Your task to perform on an android device: Open accessibility settings Image 0: 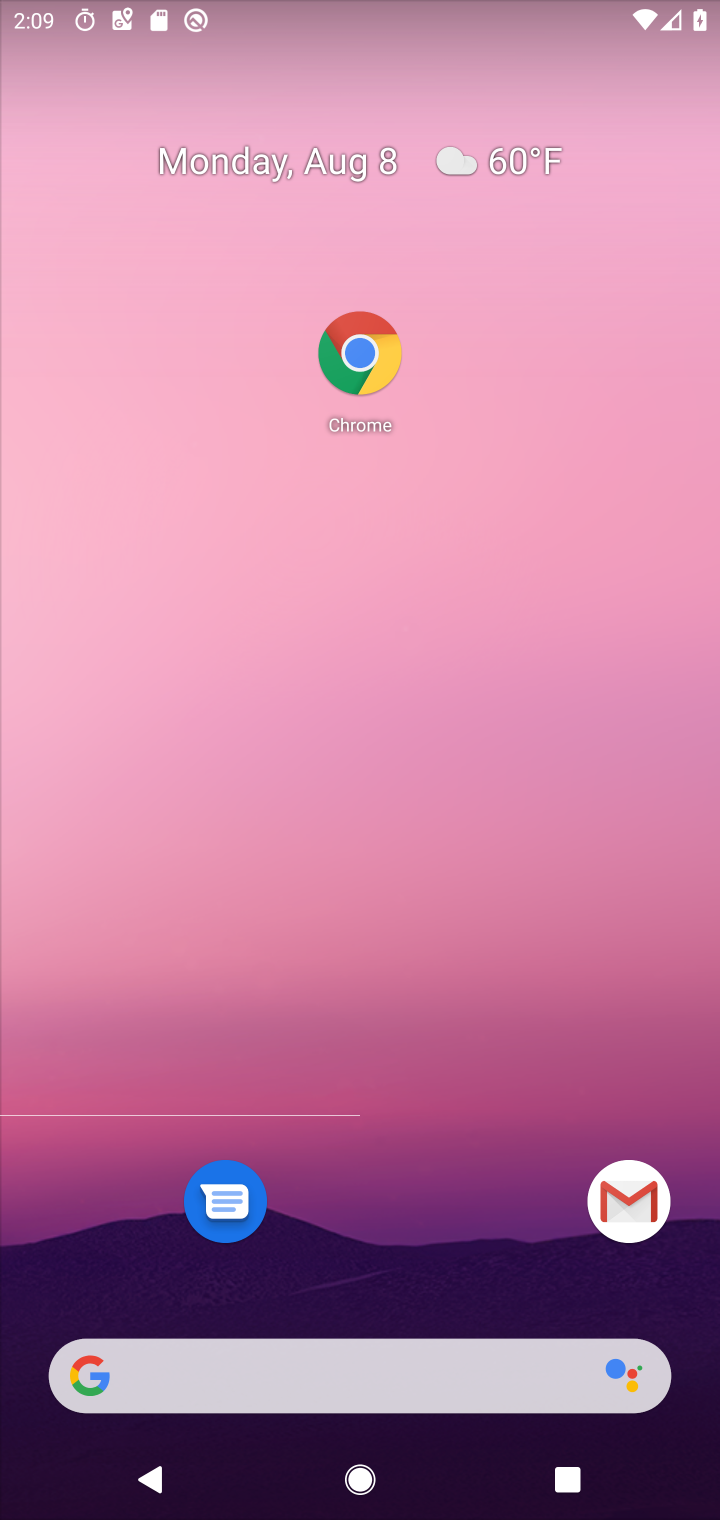
Step 0: press home button
Your task to perform on an android device: Open accessibility settings Image 1: 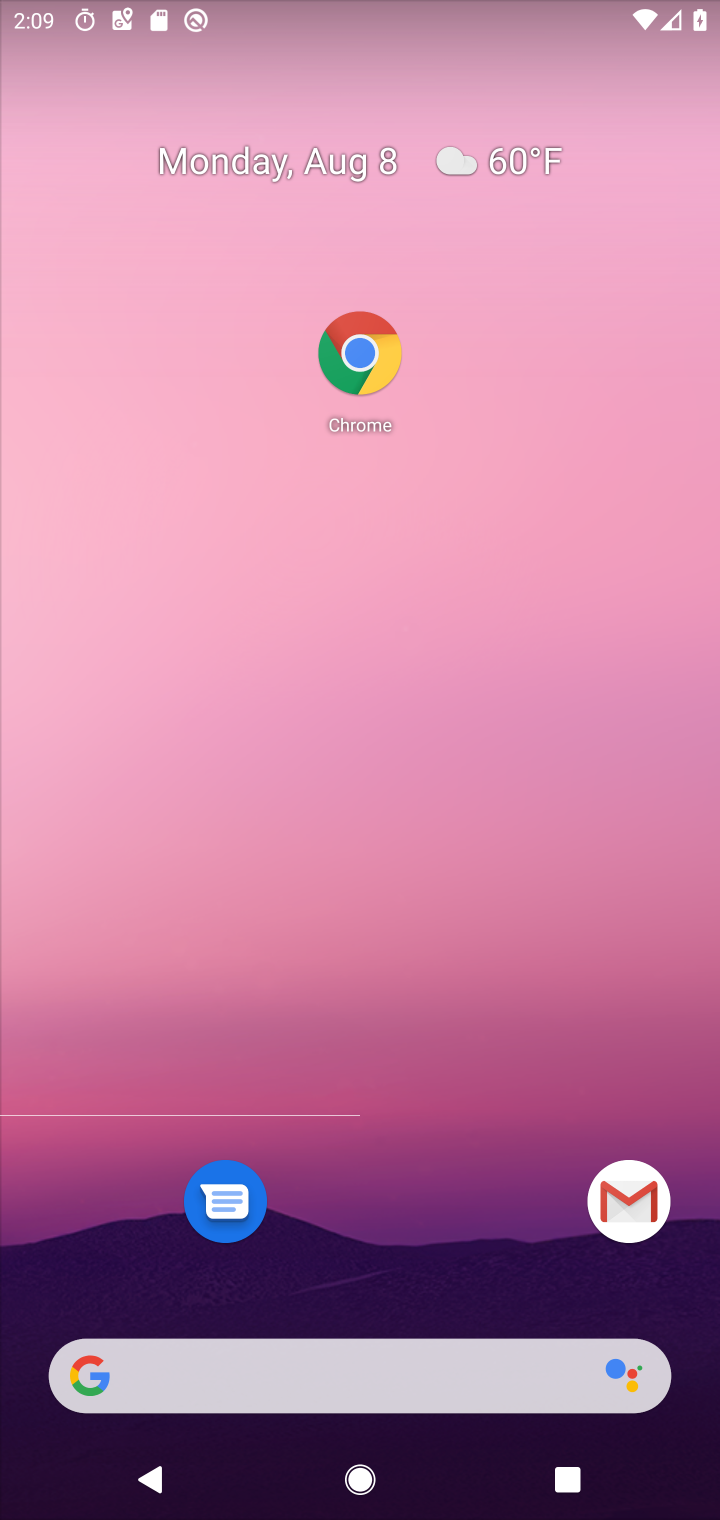
Step 1: drag from (458, 1441) to (317, 344)
Your task to perform on an android device: Open accessibility settings Image 2: 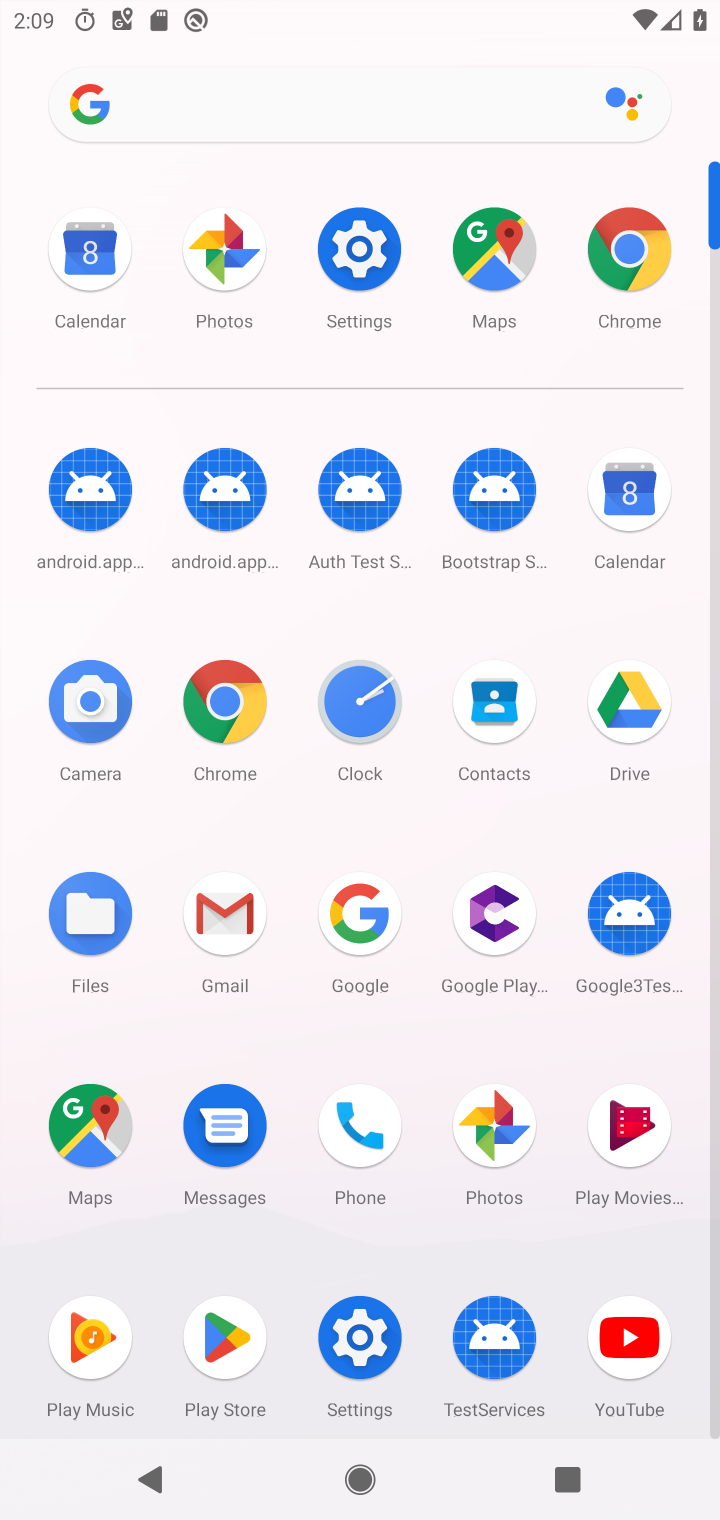
Step 2: click (362, 262)
Your task to perform on an android device: Open accessibility settings Image 3: 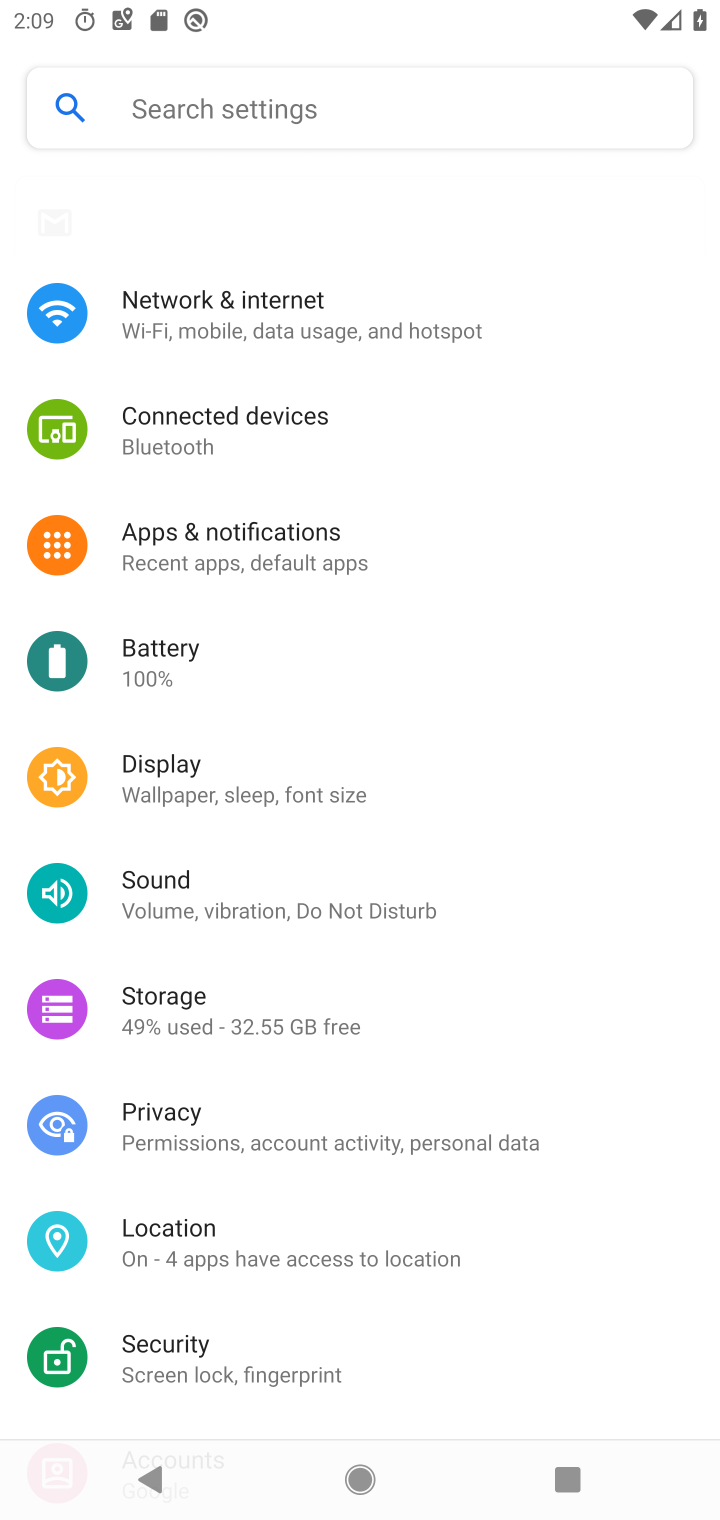
Step 3: click (257, 119)
Your task to perform on an android device: Open accessibility settings Image 4: 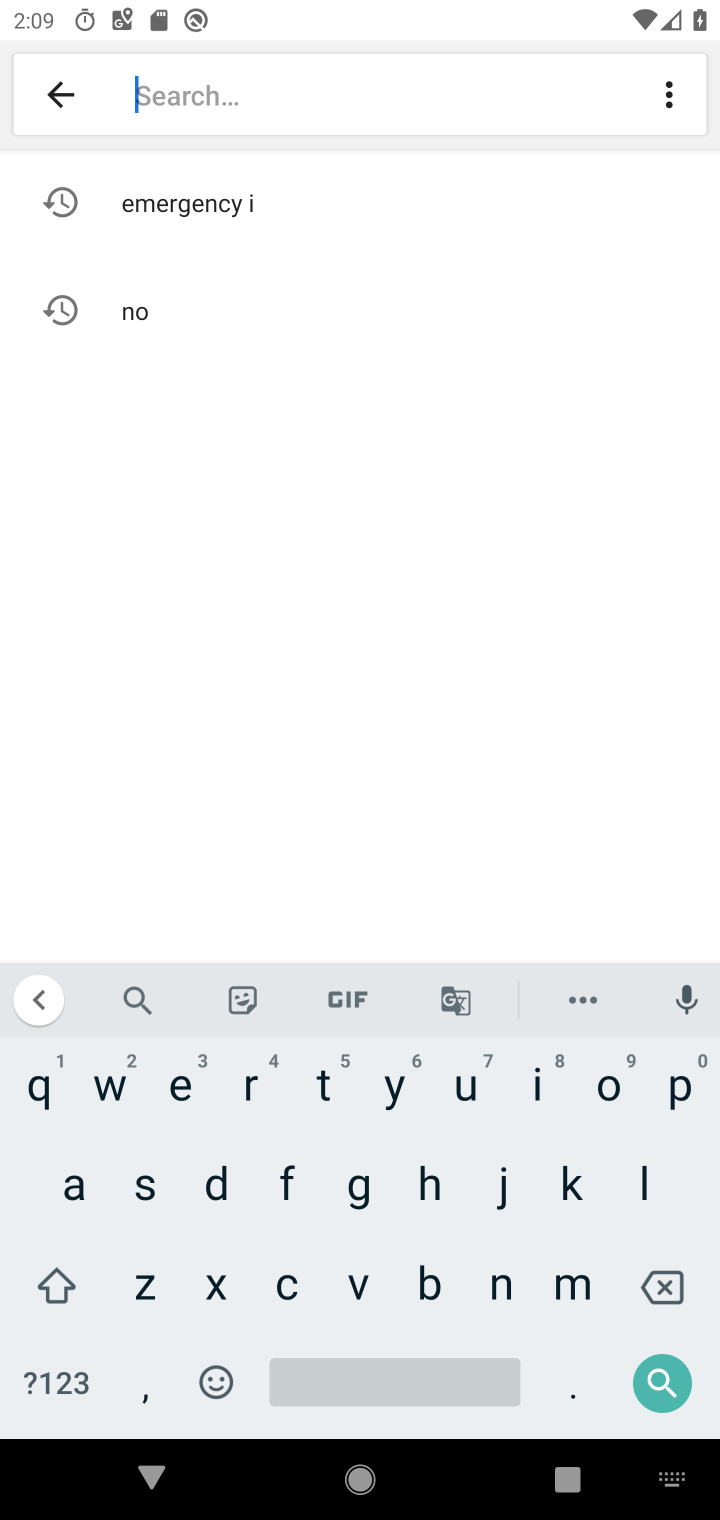
Step 4: click (60, 1198)
Your task to perform on an android device: Open accessibility settings Image 5: 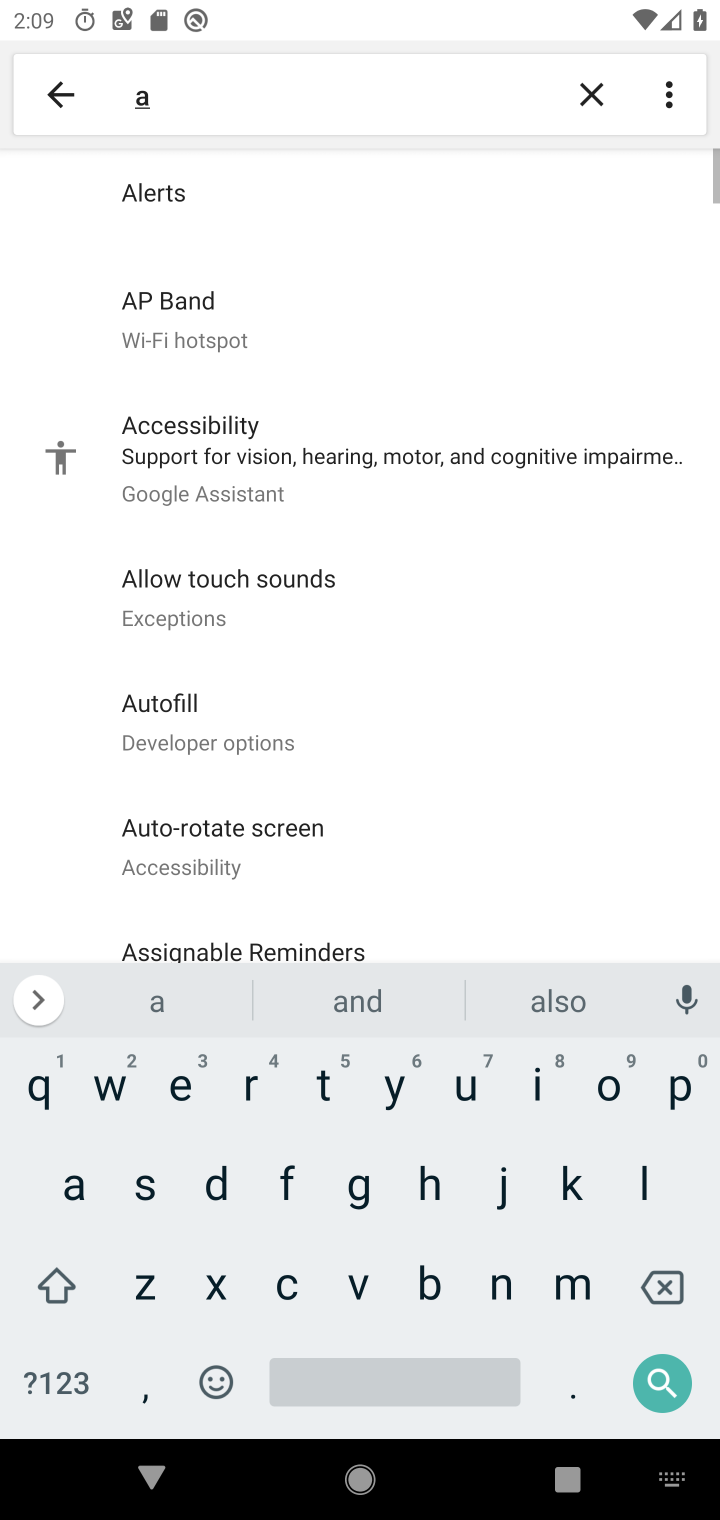
Step 5: click (284, 1276)
Your task to perform on an android device: Open accessibility settings Image 6: 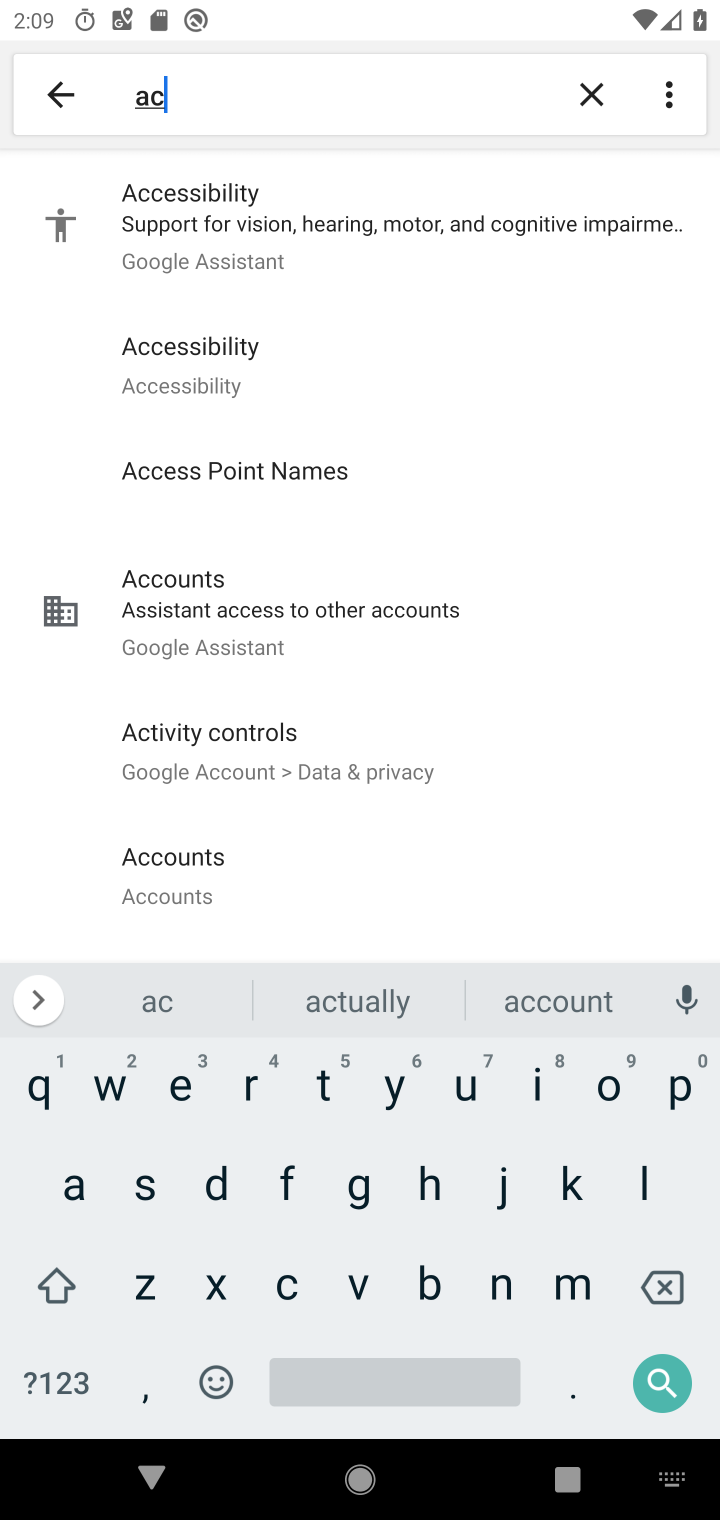
Step 6: click (268, 208)
Your task to perform on an android device: Open accessibility settings Image 7: 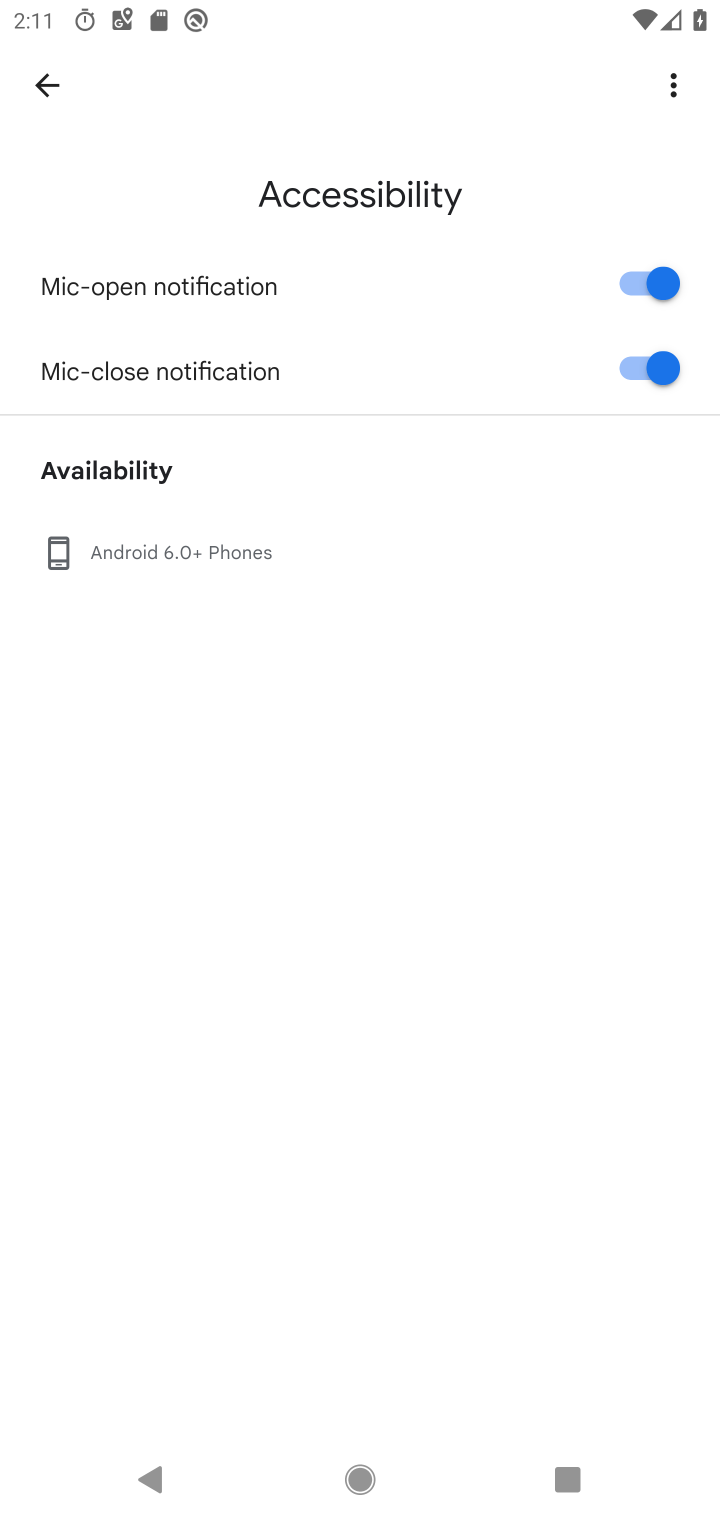
Step 7: task complete